Your task to perform on an android device: turn on javascript in the chrome app Image 0: 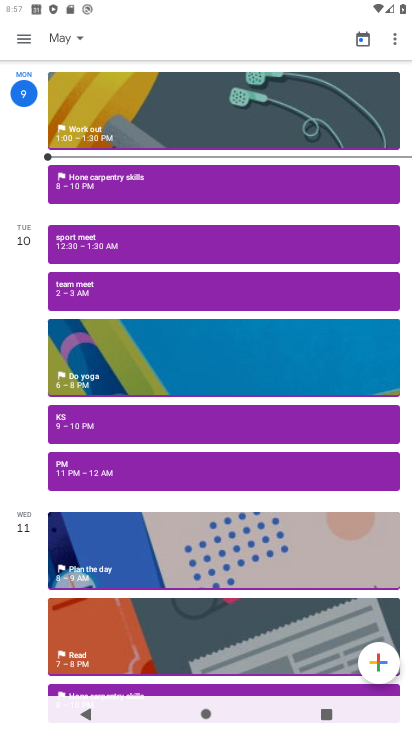
Step 0: press home button
Your task to perform on an android device: turn on javascript in the chrome app Image 1: 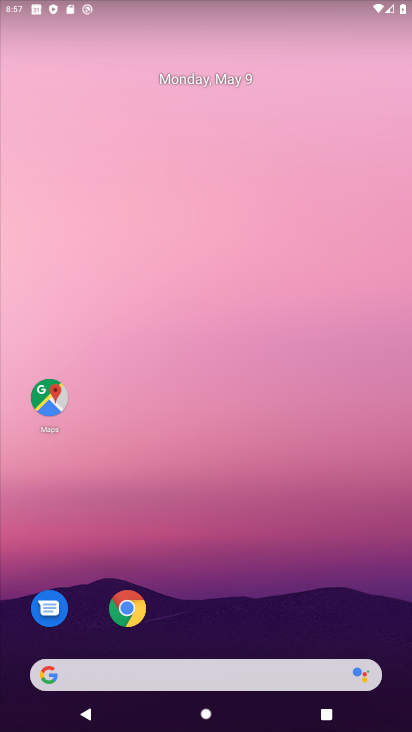
Step 1: drag from (322, 577) to (367, 72)
Your task to perform on an android device: turn on javascript in the chrome app Image 2: 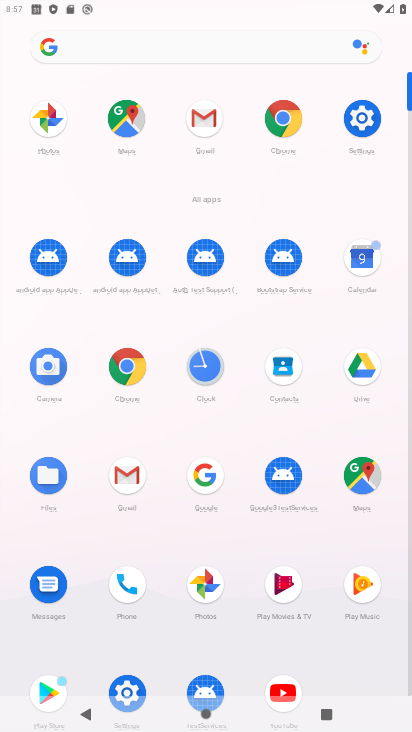
Step 2: click (264, 120)
Your task to perform on an android device: turn on javascript in the chrome app Image 3: 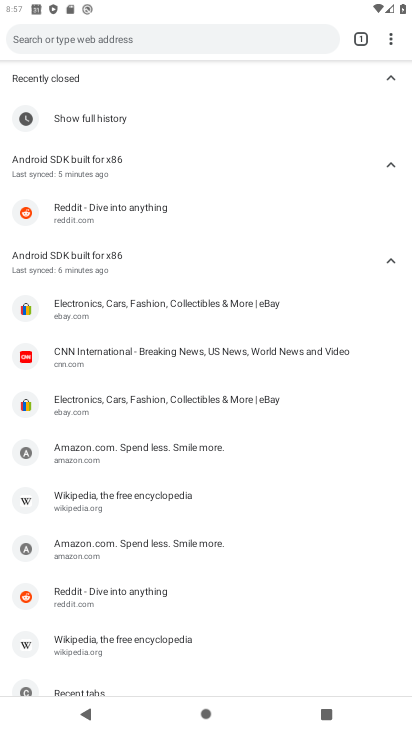
Step 3: drag from (392, 44) to (270, 327)
Your task to perform on an android device: turn on javascript in the chrome app Image 4: 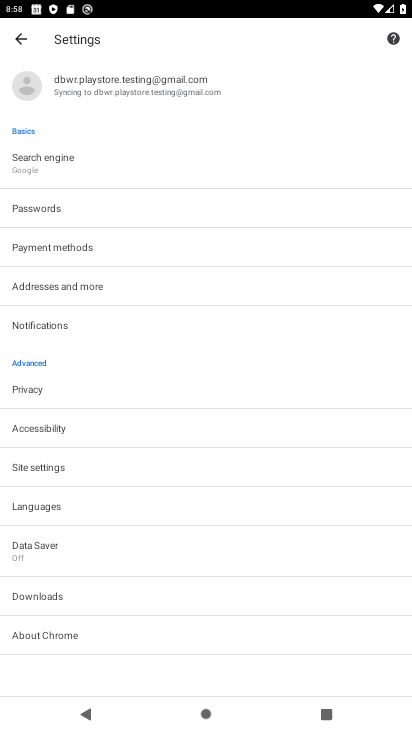
Step 4: click (40, 471)
Your task to perform on an android device: turn on javascript in the chrome app Image 5: 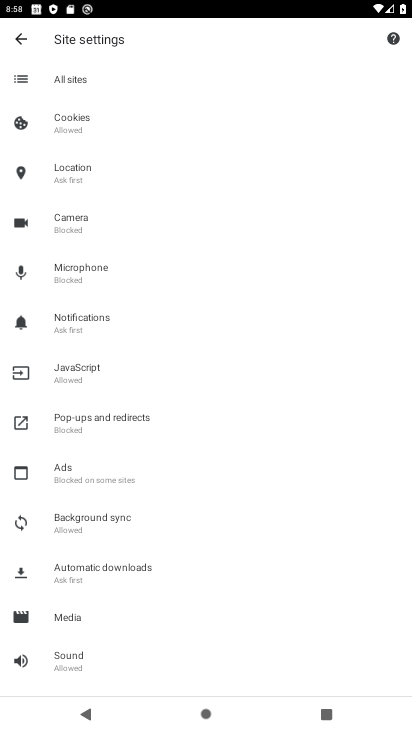
Step 5: click (82, 381)
Your task to perform on an android device: turn on javascript in the chrome app Image 6: 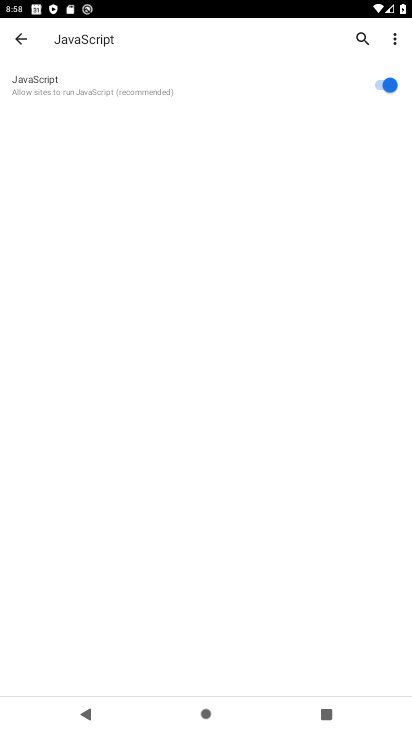
Step 6: task complete